Your task to perform on an android device: Open calendar and show me the fourth week of next month Image 0: 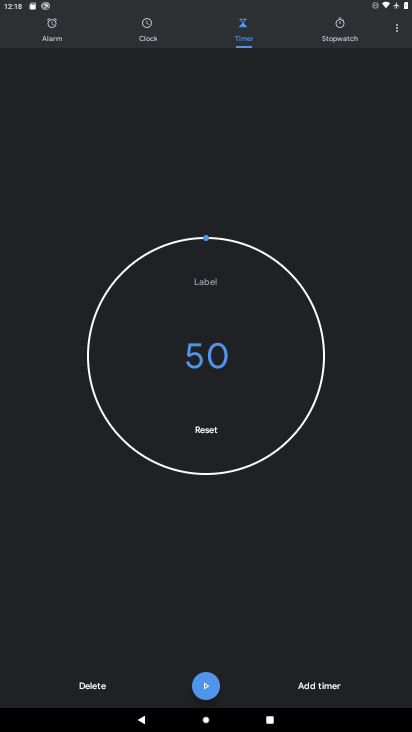
Step 0: press home button
Your task to perform on an android device: Open calendar and show me the fourth week of next month Image 1: 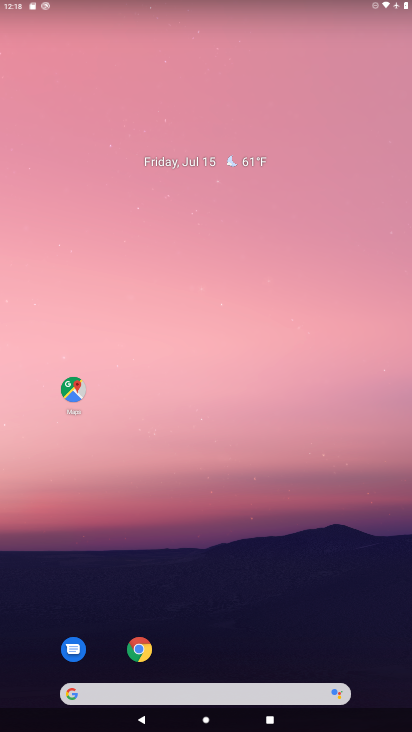
Step 1: drag from (241, 658) to (268, 40)
Your task to perform on an android device: Open calendar and show me the fourth week of next month Image 2: 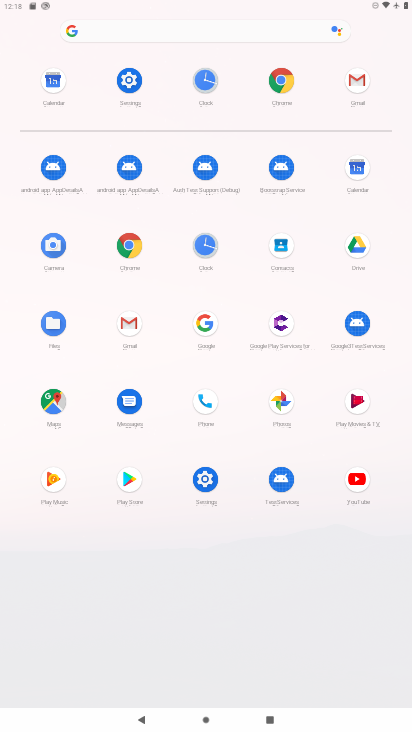
Step 2: click (355, 160)
Your task to perform on an android device: Open calendar and show me the fourth week of next month Image 3: 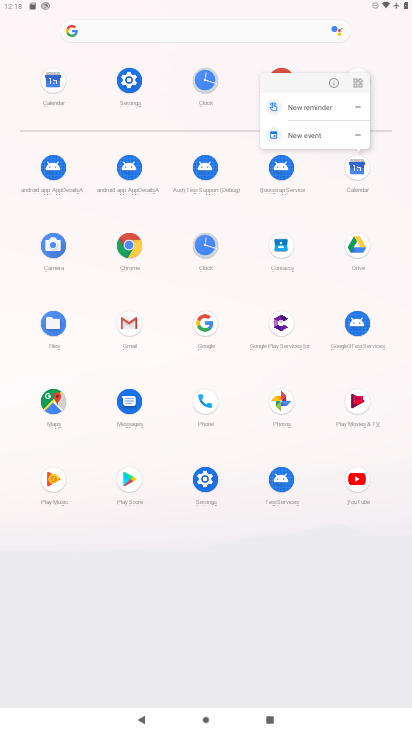
Step 3: click (359, 172)
Your task to perform on an android device: Open calendar and show me the fourth week of next month Image 4: 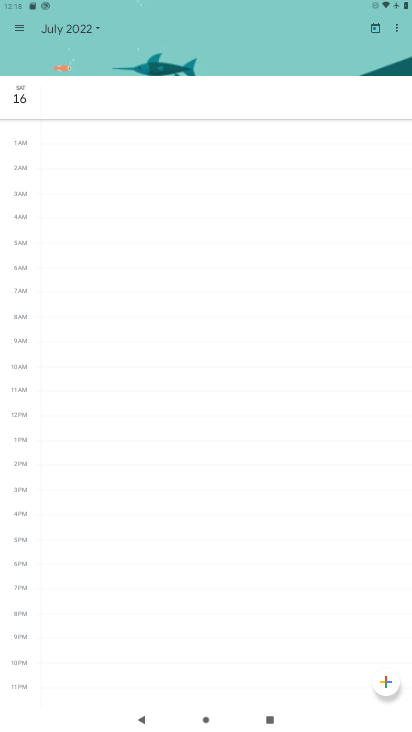
Step 4: click (97, 33)
Your task to perform on an android device: Open calendar and show me the fourth week of next month Image 5: 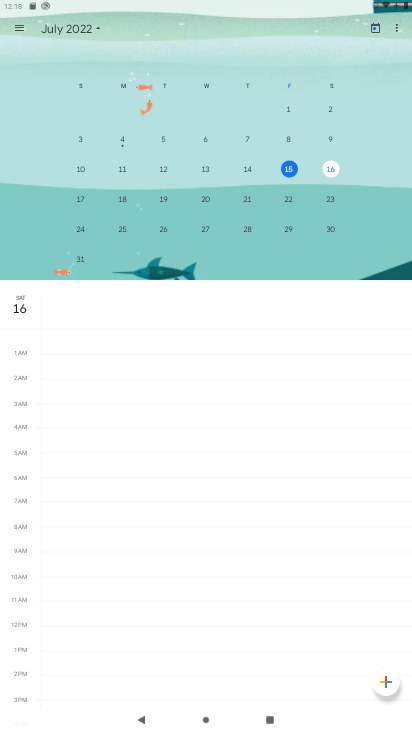
Step 5: drag from (333, 173) to (2, 168)
Your task to perform on an android device: Open calendar and show me the fourth week of next month Image 6: 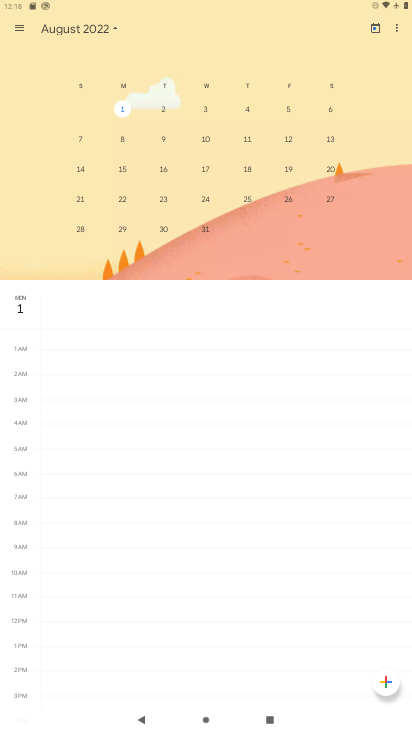
Step 6: click (22, 26)
Your task to perform on an android device: Open calendar and show me the fourth week of next month Image 7: 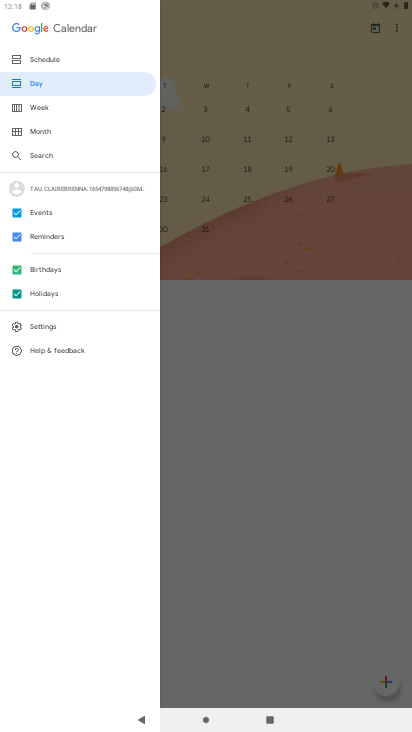
Step 7: click (29, 104)
Your task to perform on an android device: Open calendar and show me the fourth week of next month Image 8: 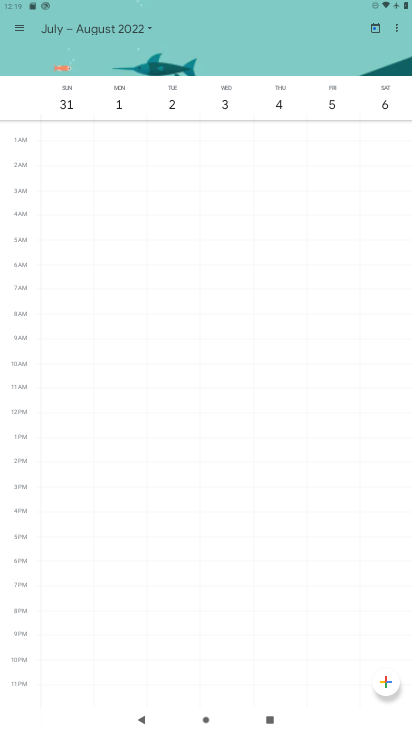
Step 8: task complete